Your task to perform on an android device: turn on showing notifications on the lock screen Image 0: 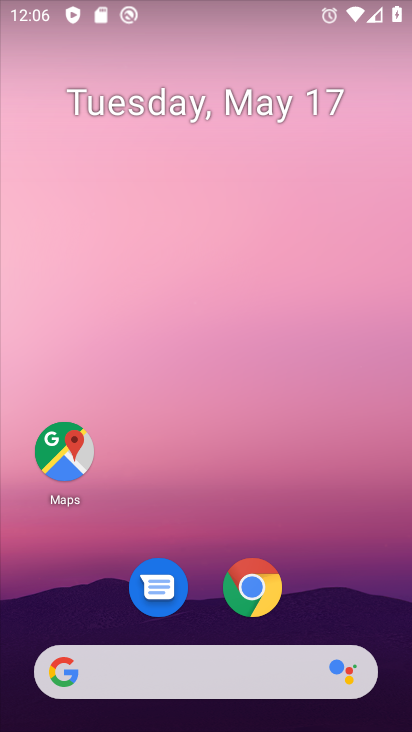
Step 0: drag from (388, 674) to (316, 134)
Your task to perform on an android device: turn on showing notifications on the lock screen Image 1: 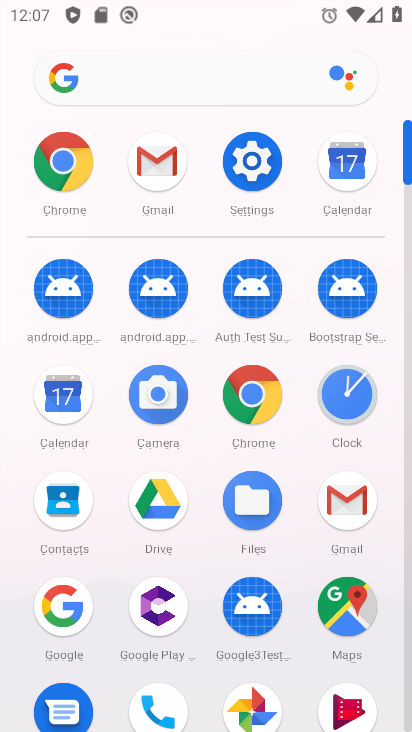
Step 1: click (248, 185)
Your task to perform on an android device: turn on showing notifications on the lock screen Image 2: 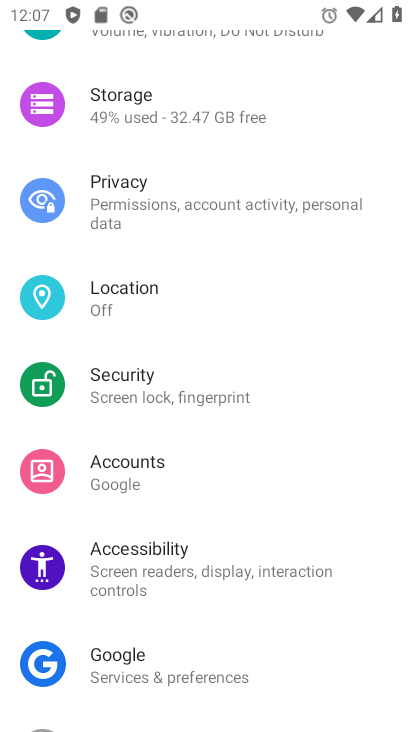
Step 2: drag from (234, 212) to (196, 580)
Your task to perform on an android device: turn on showing notifications on the lock screen Image 3: 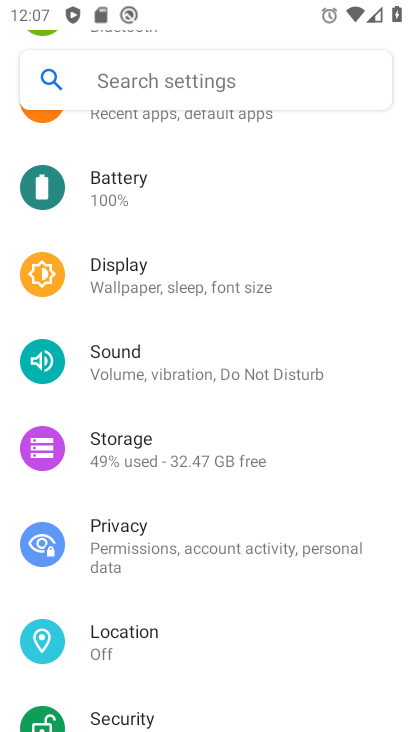
Step 3: drag from (154, 173) to (168, 577)
Your task to perform on an android device: turn on showing notifications on the lock screen Image 4: 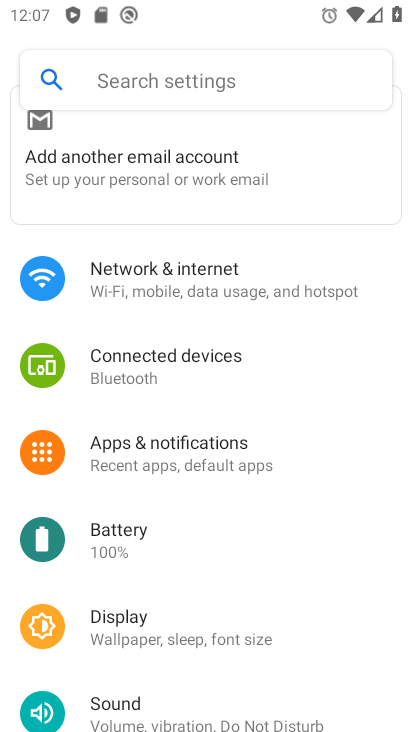
Step 4: click (205, 458)
Your task to perform on an android device: turn on showing notifications on the lock screen Image 5: 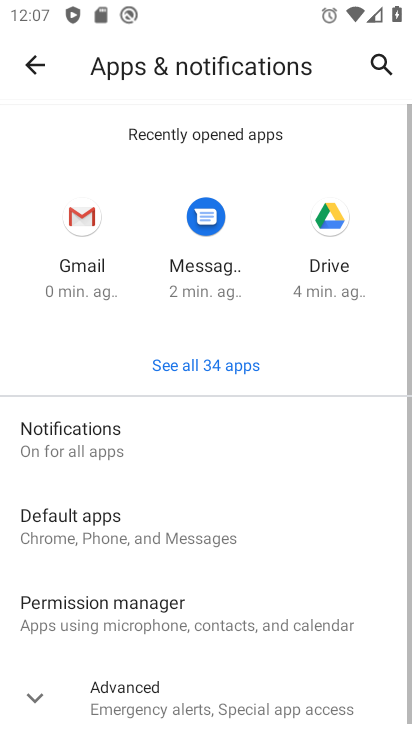
Step 5: click (188, 433)
Your task to perform on an android device: turn on showing notifications on the lock screen Image 6: 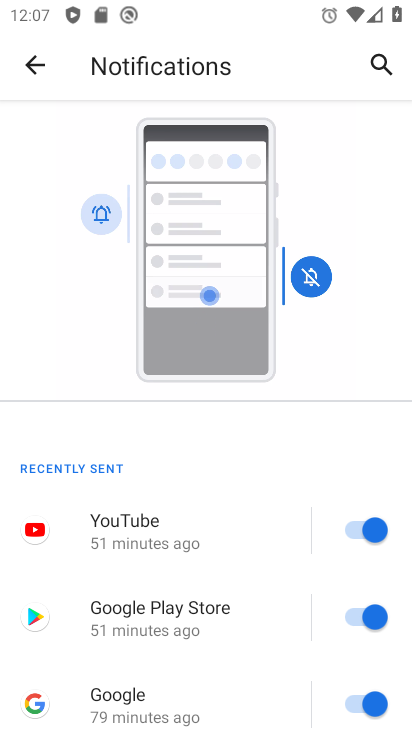
Step 6: drag from (144, 712) to (203, 219)
Your task to perform on an android device: turn on showing notifications on the lock screen Image 7: 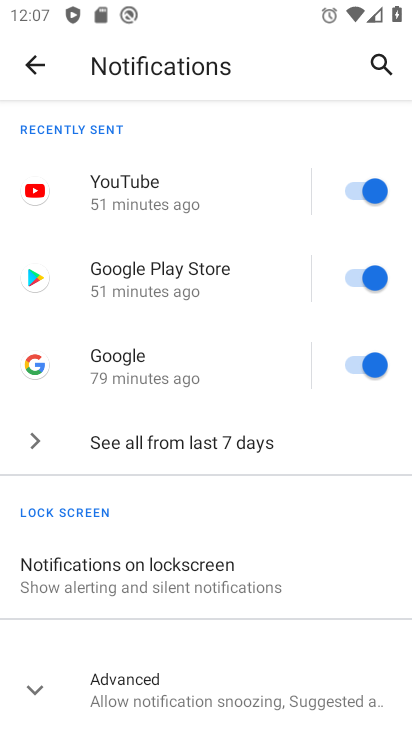
Step 7: click (179, 594)
Your task to perform on an android device: turn on showing notifications on the lock screen Image 8: 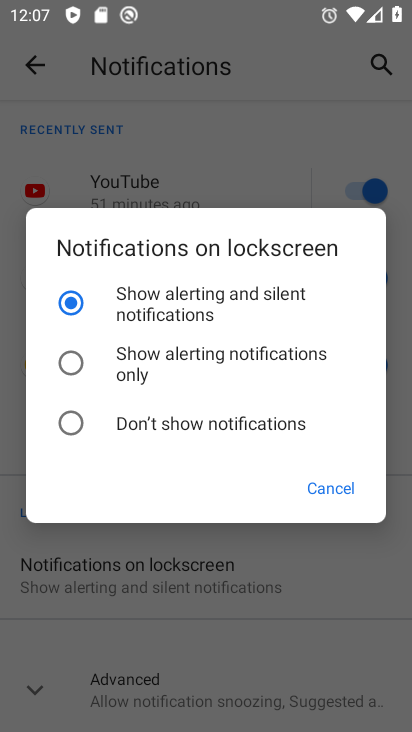
Step 8: task complete